Your task to perform on an android device: Search for flights from Mexico city to Boston Image 0: 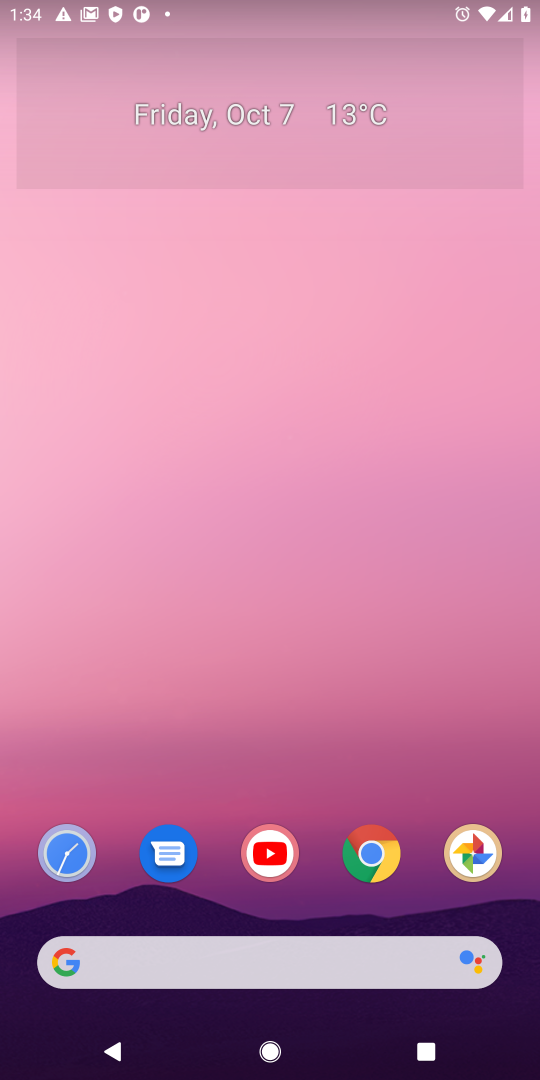
Step 0: click (380, 882)
Your task to perform on an android device: Search for flights from Mexico city to Boston Image 1: 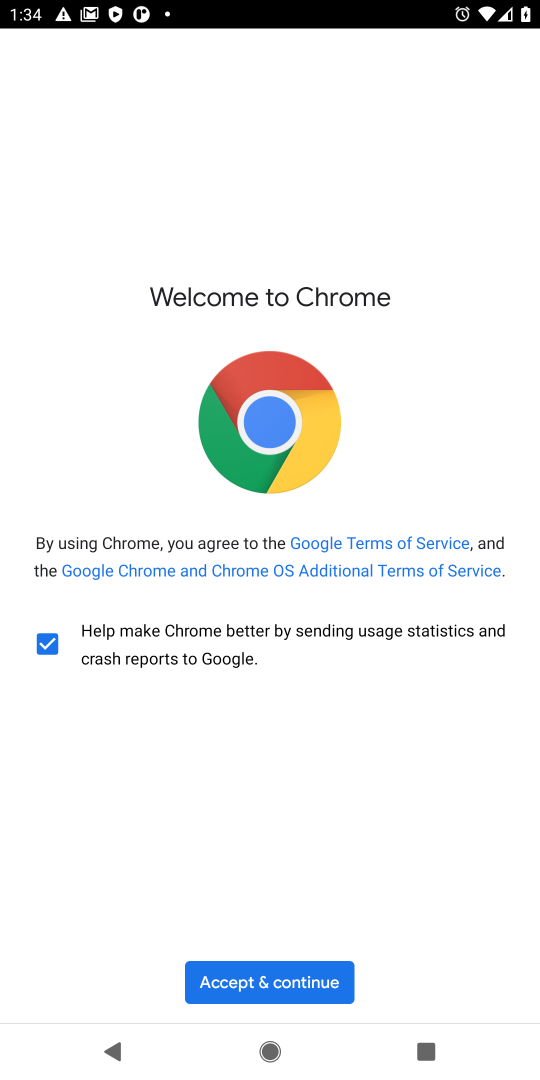
Step 1: click (295, 989)
Your task to perform on an android device: Search for flights from Mexico city to Boston Image 2: 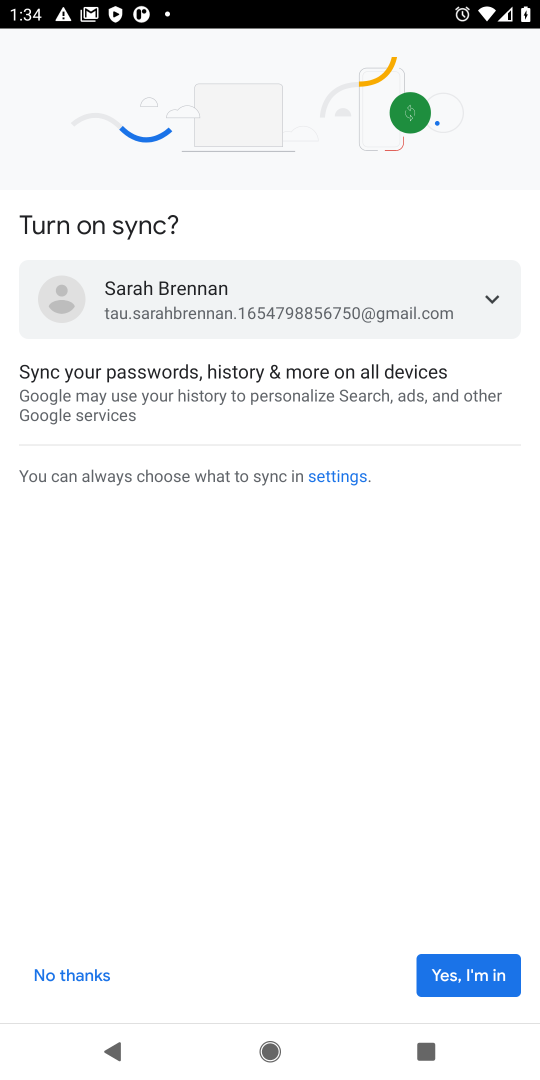
Step 2: click (470, 988)
Your task to perform on an android device: Search for flights from Mexico city to Boston Image 3: 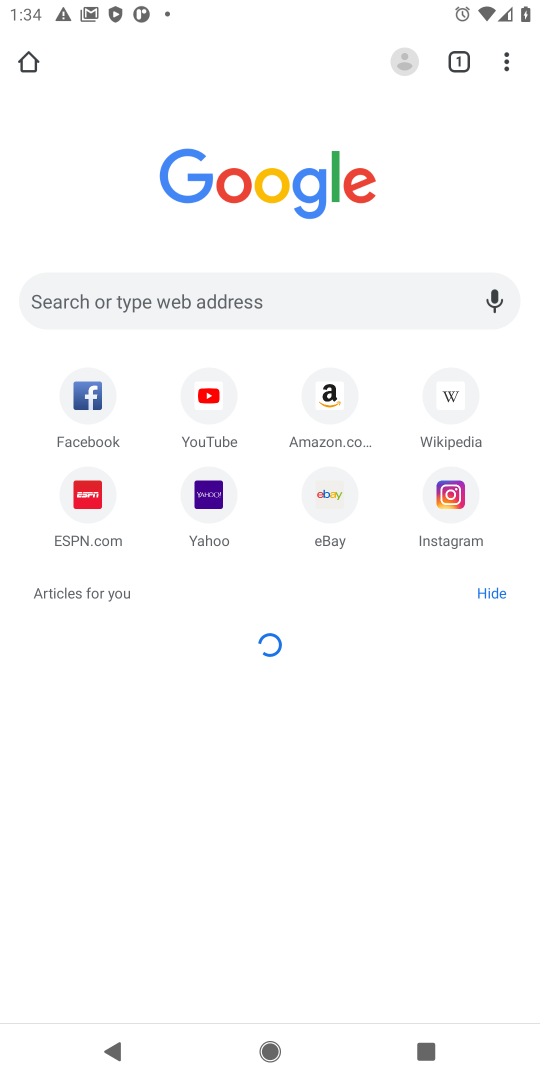
Step 3: type "Search for flights from Mexico city to Boston"
Your task to perform on an android device: Search for flights from Mexico city to Boston Image 4: 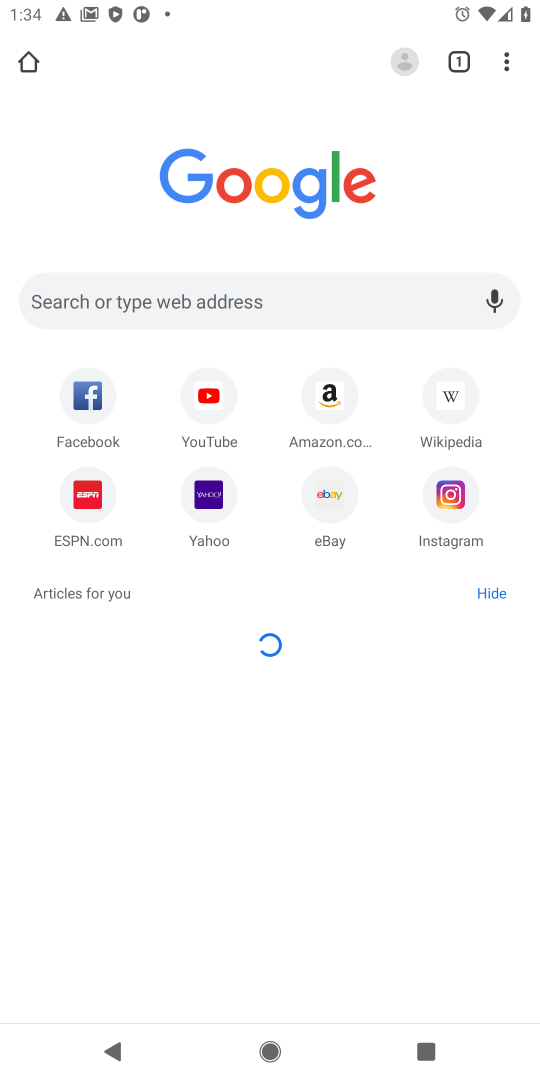
Step 4: click (343, 305)
Your task to perform on an android device: Search for flights from Mexico city to Boston Image 5: 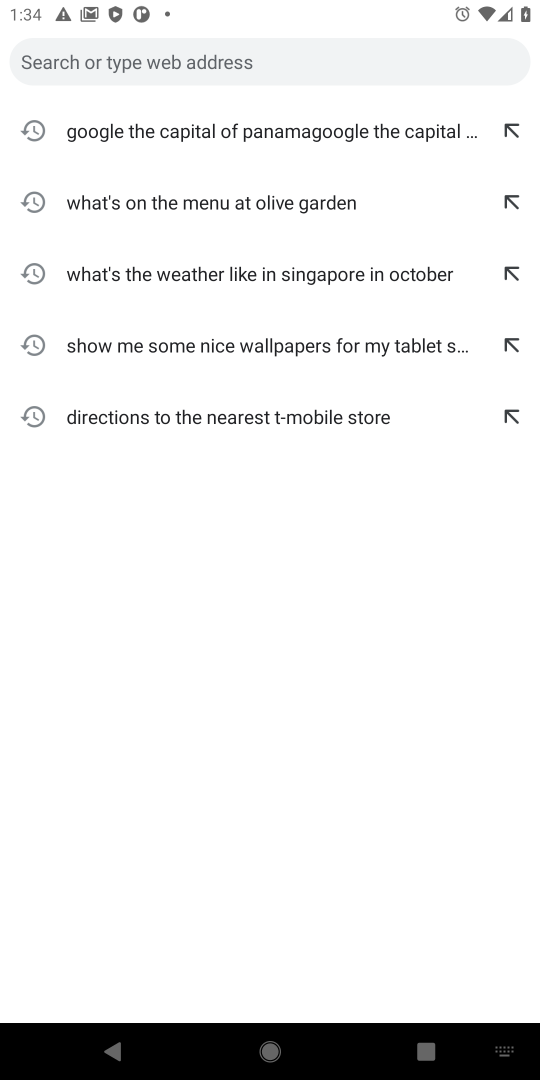
Step 5: type "Search for flights from Mexico city to Boston"
Your task to perform on an android device: Search for flights from Mexico city to Boston Image 6: 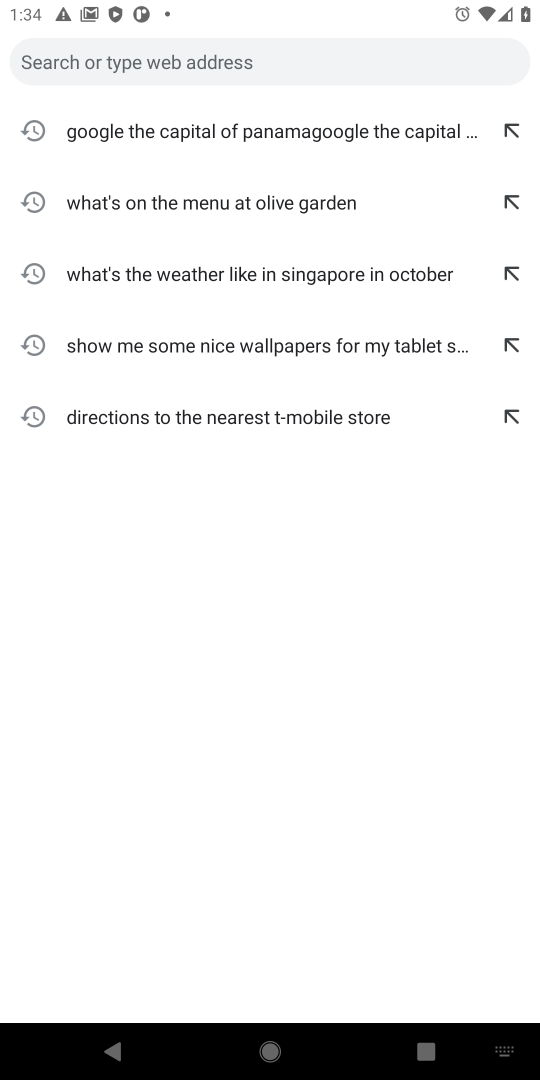
Step 6: drag from (312, 57) to (391, 67)
Your task to perform on an android device: Search for flights from Mexico city to Boston Image 7: 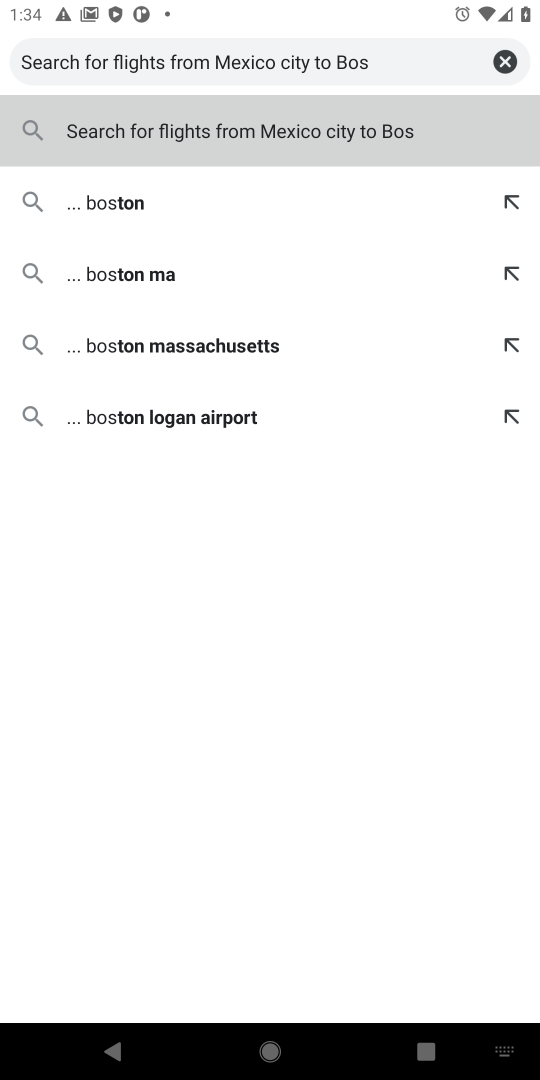
Step 7: click (391, 67)
Your task to perform on an android device: Search for flights from Mexico city to Boston Image 8: 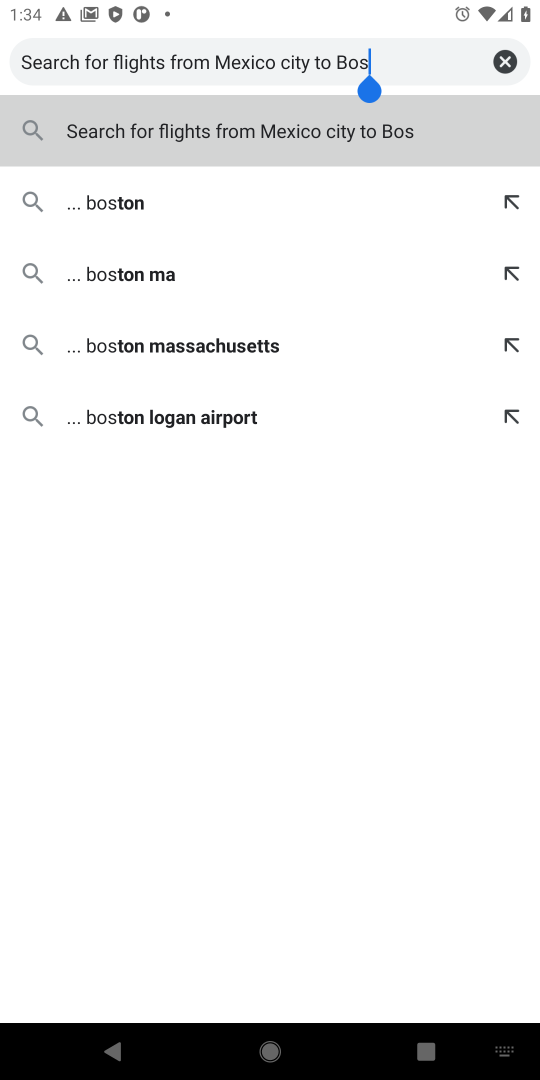
Step 8: click (276, 146)
Your task to perform on an android device: Search for flights from Mexico city to Boston Image 9: 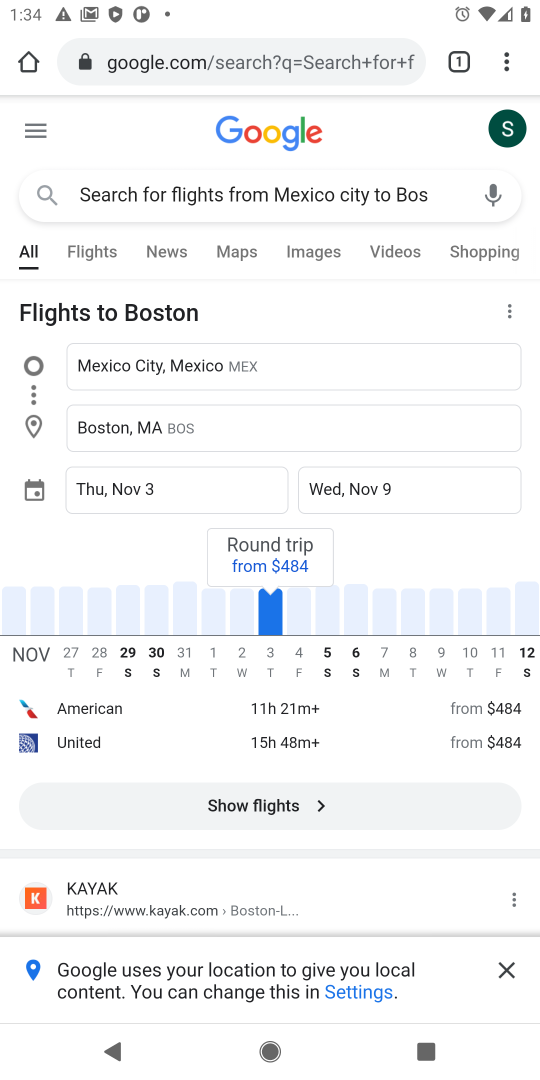
Step 9: task complete